Your task to perform on an android device: Go to Maps Image 0: 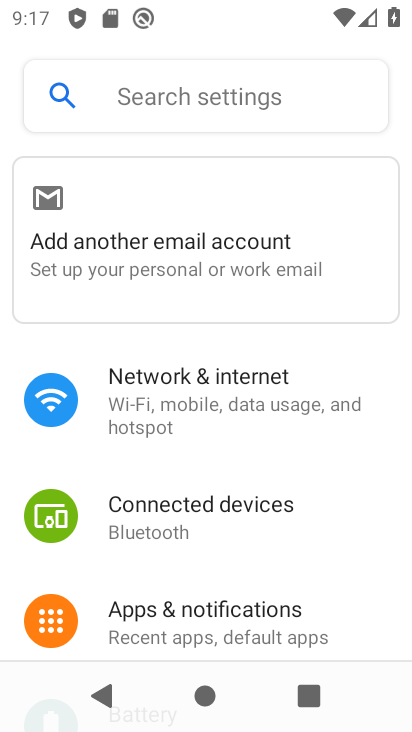
Step 0: press home button
Your task to perform on an android device: Go to Maps Image 1: 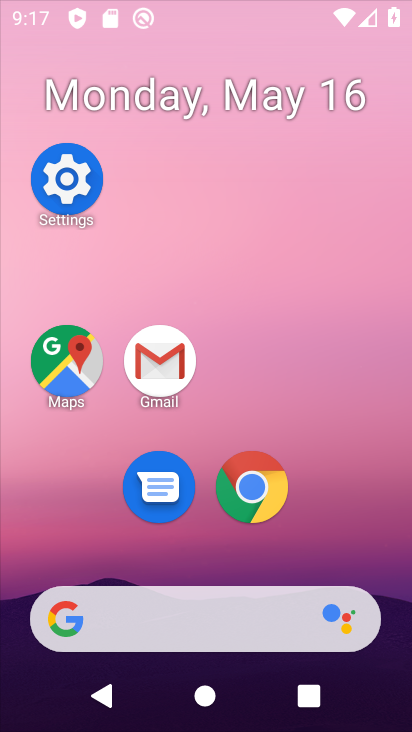
Step 1: click (68, 359)
Your task to perform on an android device: Go to Maps Image 2: 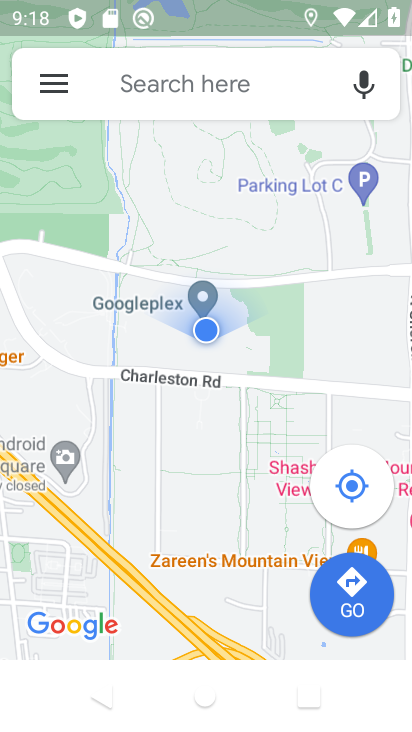
Step 2: task complete